Your task to perform on an android device: remove spam from my inbox in the gmail app Image 0: 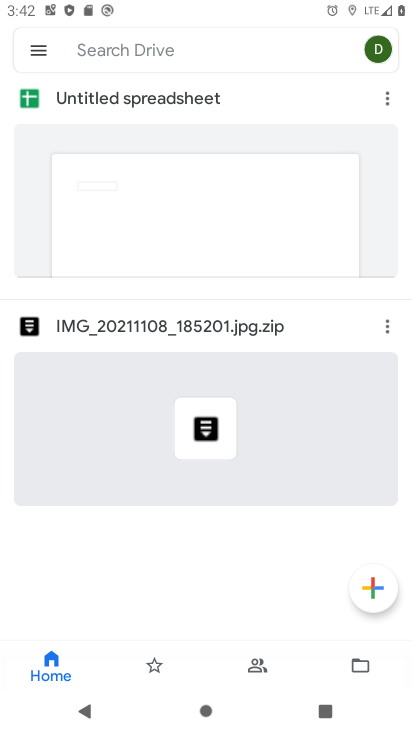
Step 0: press home button
Your task to perform on an android device: remove spam from my inbox in the gmail app Image 1: 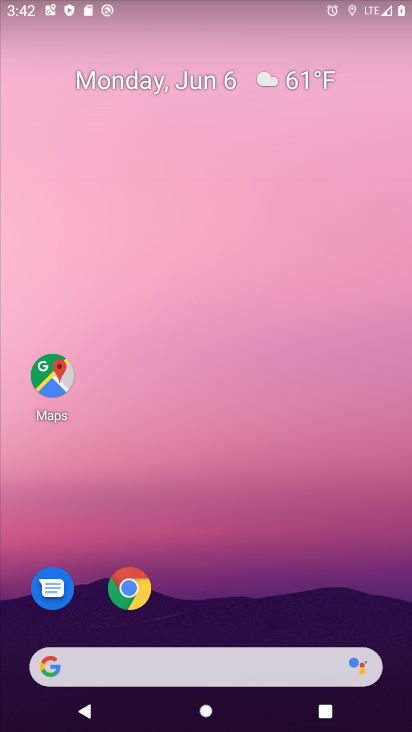
Step 1: drag from (271, 625) to (235, 184)
Your task to perform on an android device: remove spam from my inbox in the gmail app Image 2: 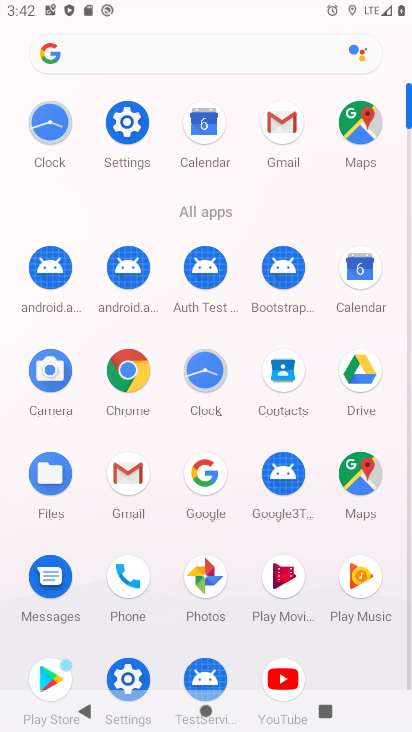
Step 2: click (271, 140)
Your task to perform on an android device: remove spam from my inbox in the gmail app Image 3: 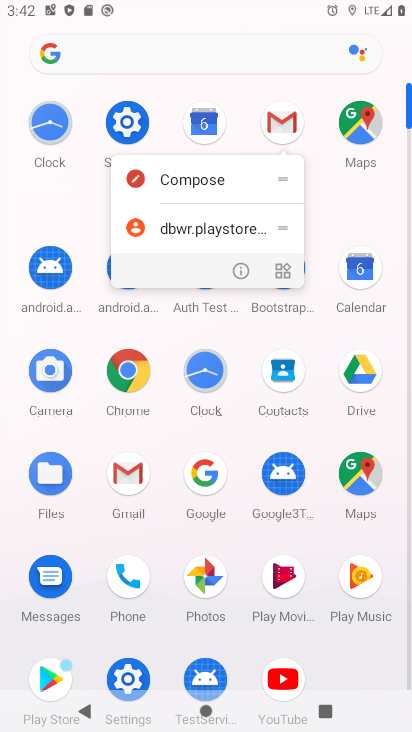
Step 3: click (283, 131)
Your task to perform on an android device: remove spam from my inbox in the gmail app Image 4: 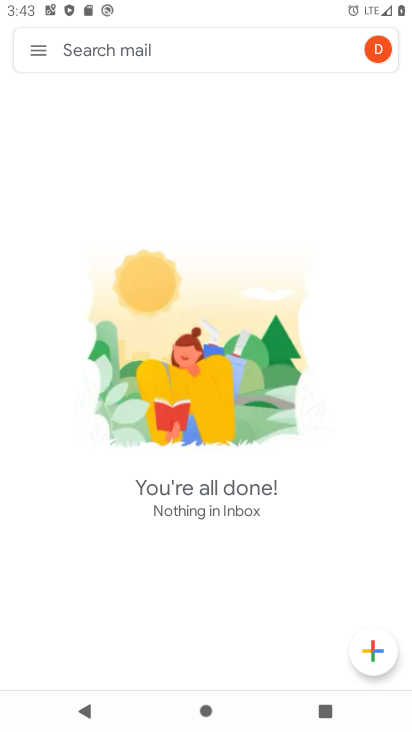
Step 4: click (30, 48)
Your task to perform on an android device: remove spam from my inbox in the gmail app Image 5: 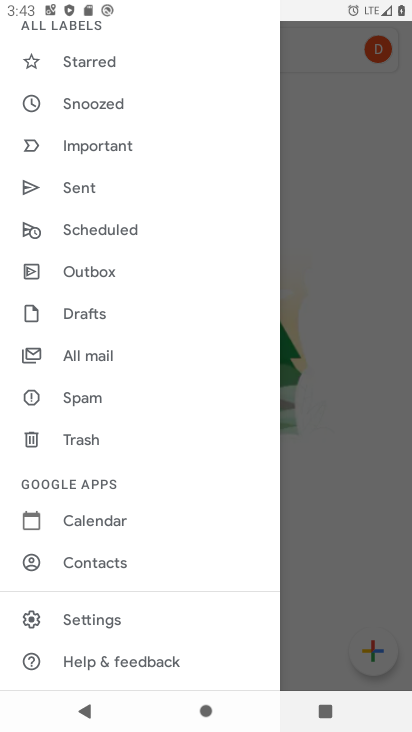
Step 5: click (88, 410)
Your task to perform on an android device: remove spam from my inbox in the gmail app Image 6: 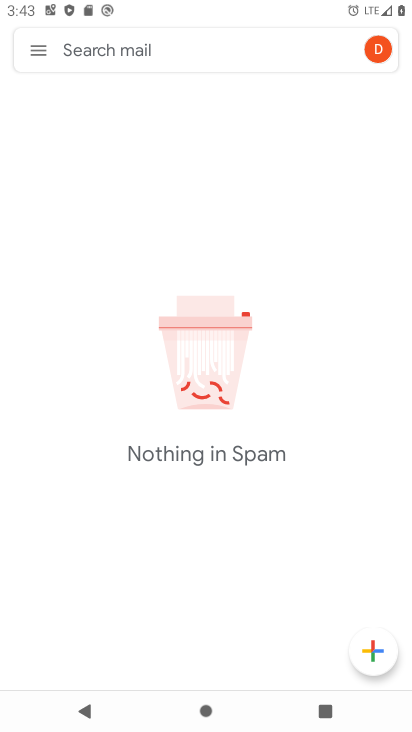
Step 6: task complete